Your task to perform on an android device: Search for seafood restaurants on Google Maps Image 0: 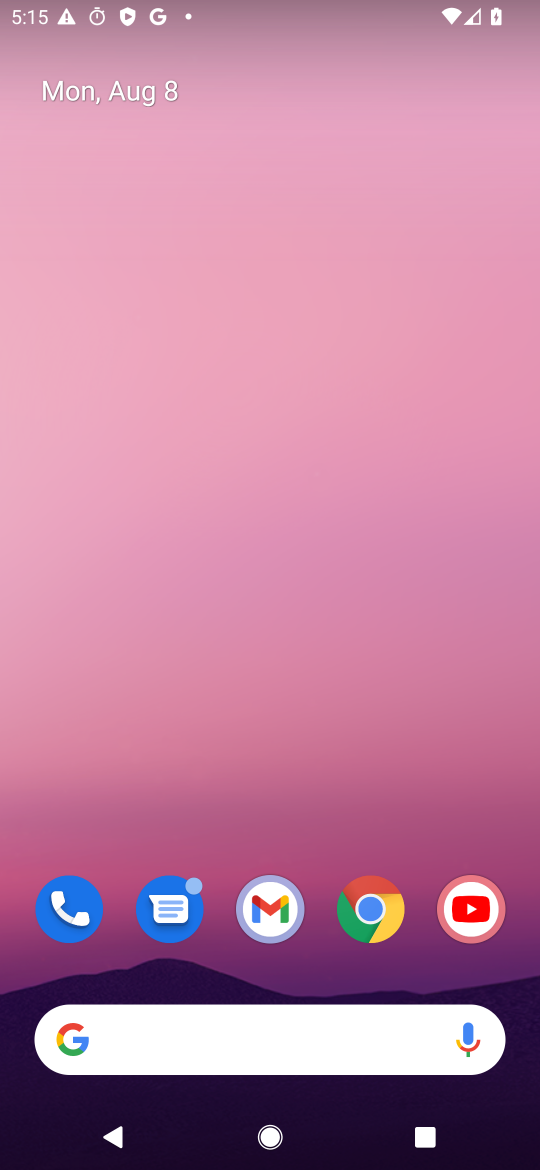
Step 0: drag from (239, 1048) to (392, 321)
Your task to perform on an android device: Search for seafood restaurants on Google Maps Image 1: 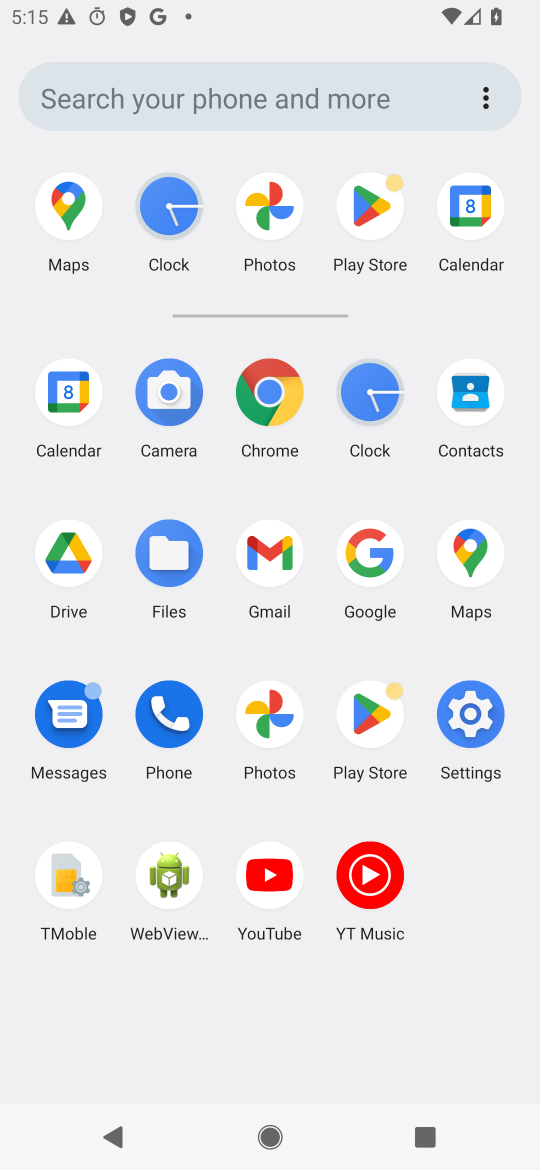
Step 1: click (468, 556)
Your task to perform on an android device: Search for seafood restaurants on Google Maps Image 2: 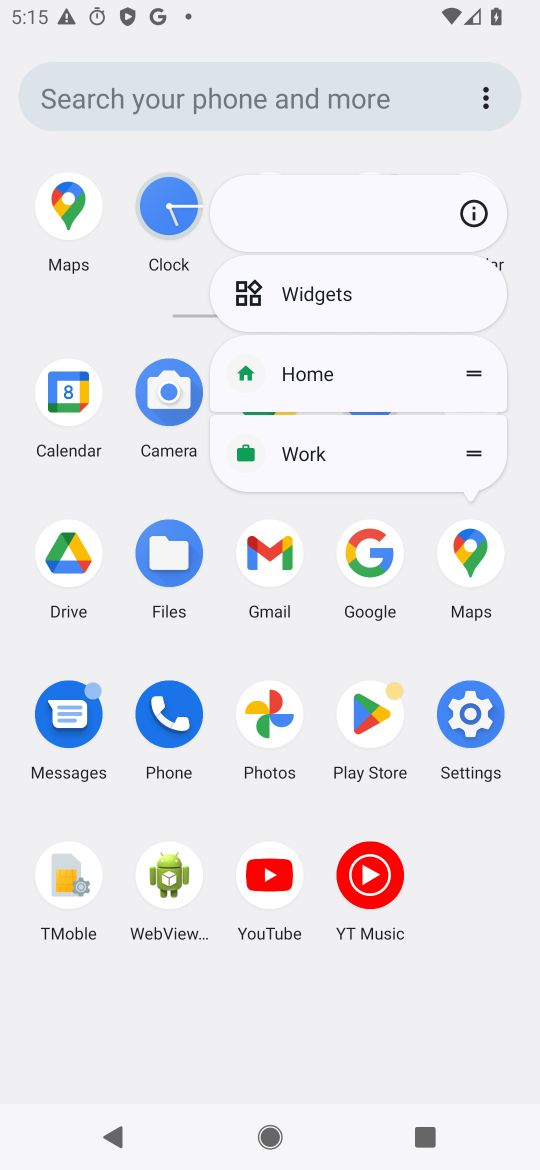
Step 2: click (504, 562)
Your task to perform on an android device: Search for seafood restaurants on Google Maps Image 3: 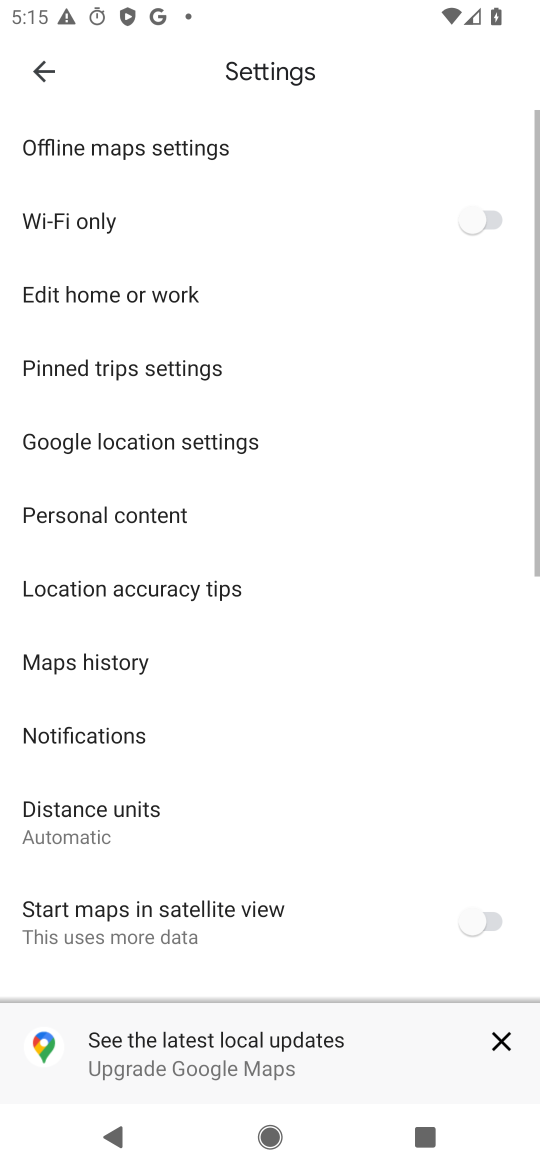
Step 3: click (47, 60)
Your task to perform on an android device: Search for seafood restaurants on Google Maps Image 4: 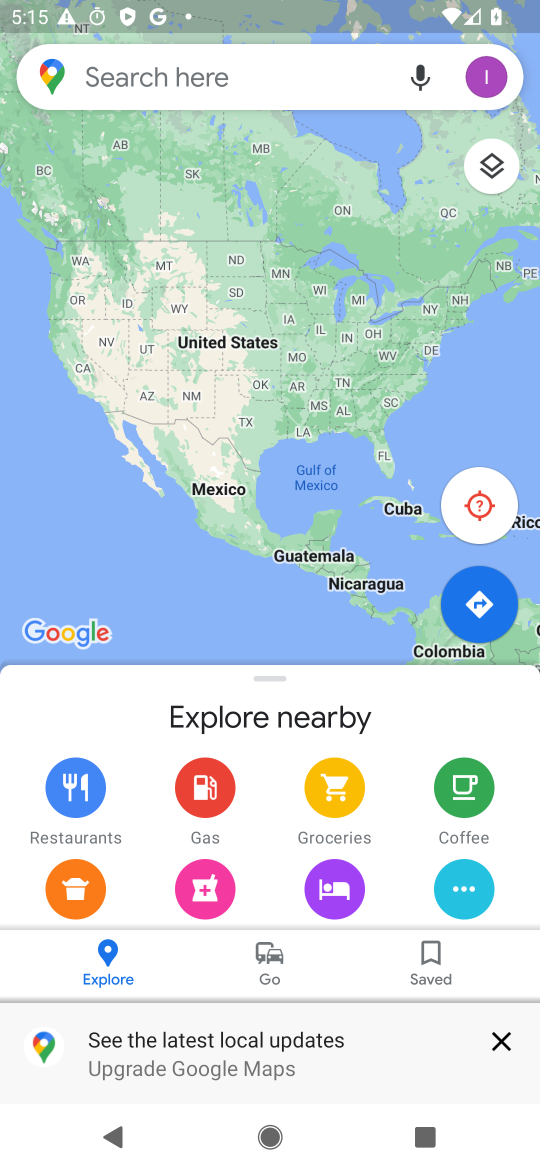
Step 4: click (120, 76)
Your task to perform on an android device: Search for seafood restaurants on Google Maps Image 5: 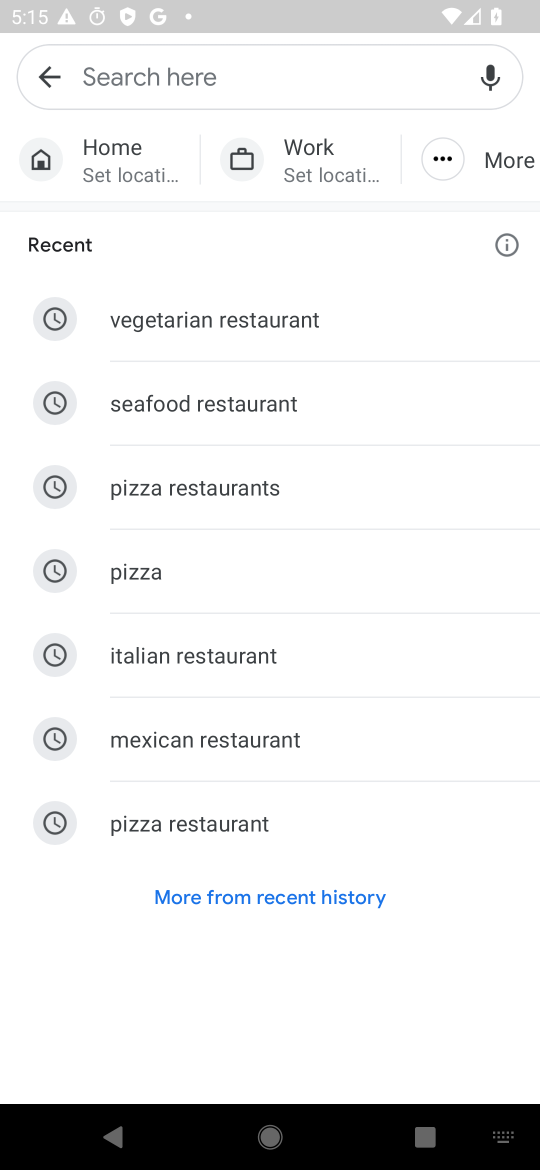
Step 5: click (184, 407)
Your task to perform on an android device: Search for seafood restaurants on Google Maps Image 6: 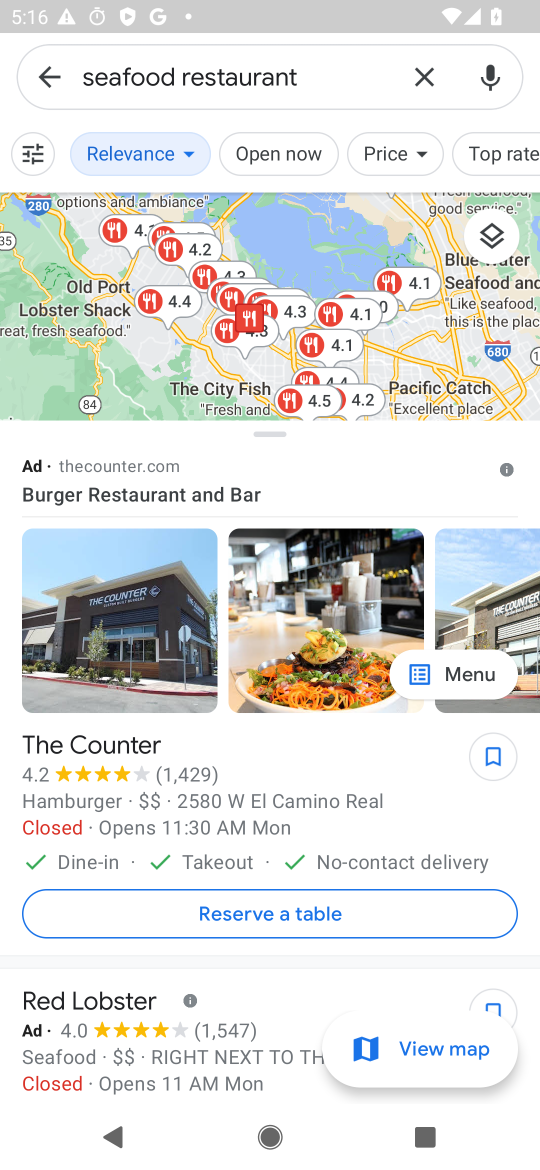
Step 6: task complete